Your task to perform on an android device: visit the assistant section in the google photos Image 0: 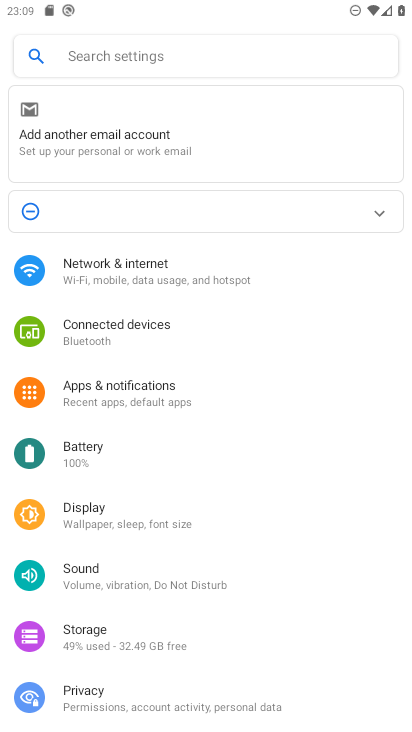
Step 0: press home button
Your task to perform on an android device: visit the assistant section in the google photos Image 1: 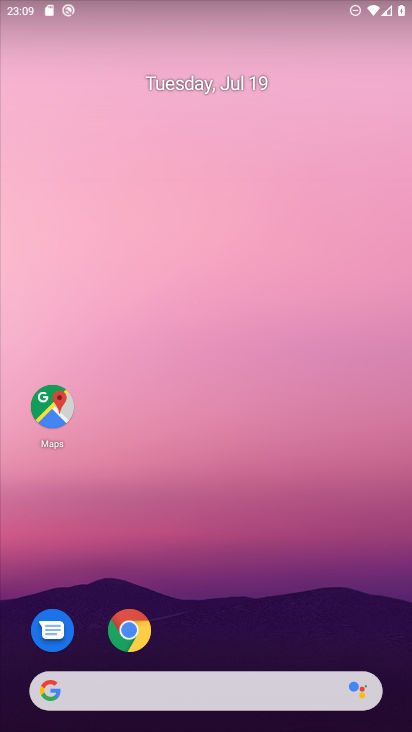
Step 1: drag from (208, 617) to (209, 149)
Your task to perform on an android device: visit the assistant section in the google photos Image 2: 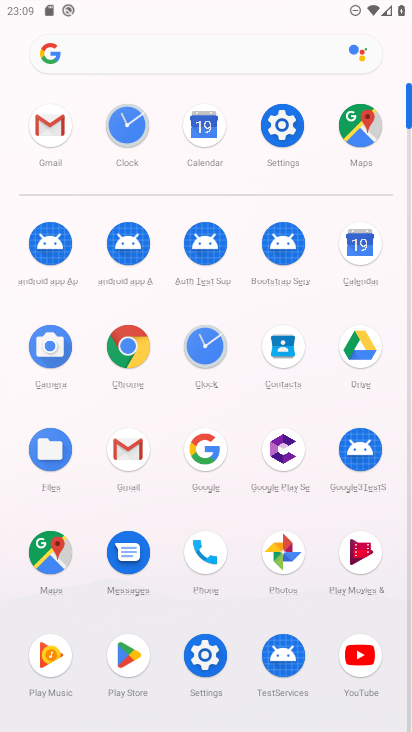
Step 2: click (284, 550)
Your task to perform on an android device: visit the assistant section in the google photos Image 3: 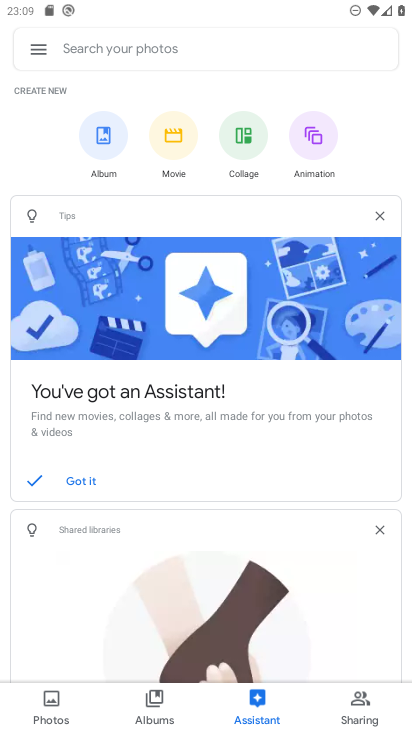
Step 3: task complete